Your task to perform on an android device: Search for vegetarian restaurants on Maps Image 0: 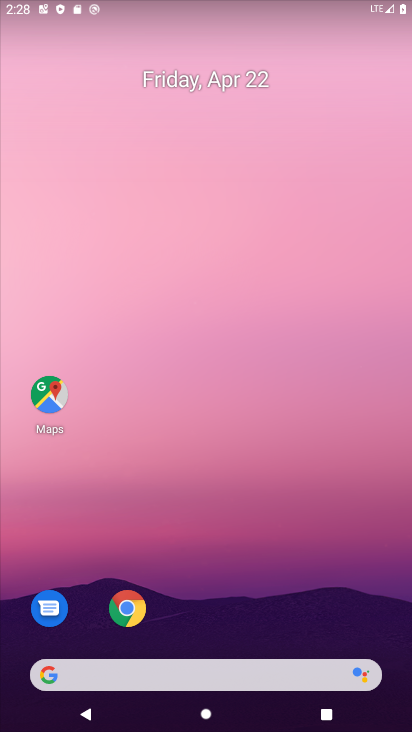
Step 0: drag from (278, 701) to (268, 267)
Your task to perform on an android device: Search for vegetarian restaurants on Maps Image 1: 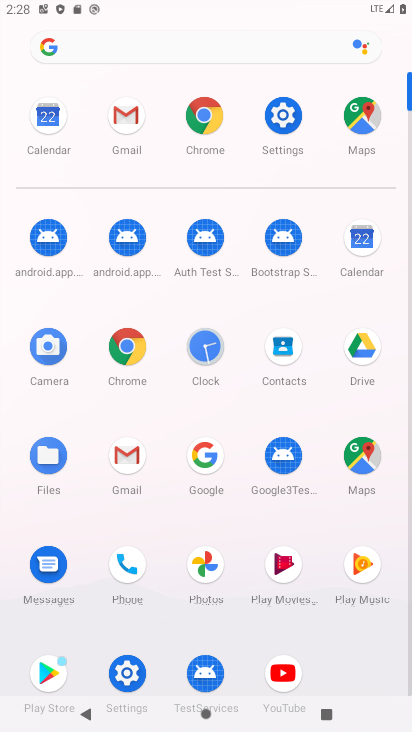
Step 1: click (347, 115)
Your task to perform on an android device: Search for vegetarian restaurants on Maps Image 2: 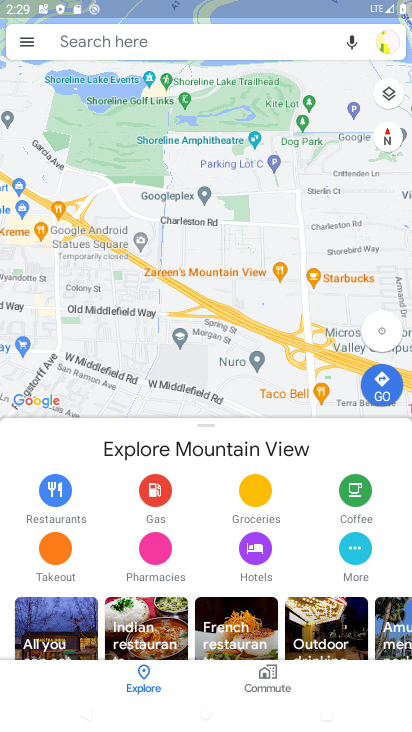
Step 2: click (194, 38)
Your task to perform on an android device: Search for vegetarian restaurants on Maps Image 3: 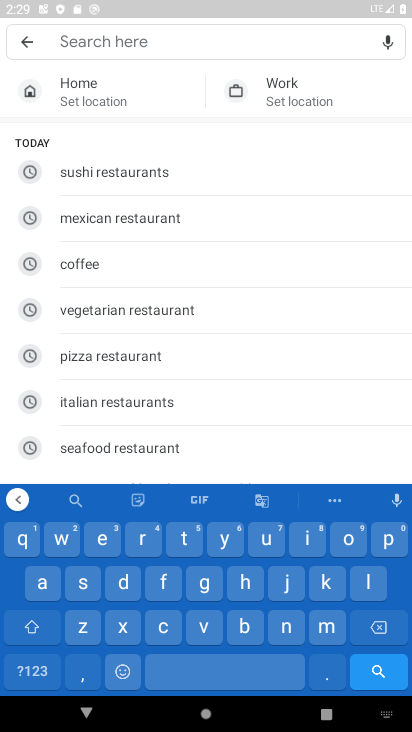
Step 3: click (82, 309)
Your task to perform on an android device: Search for vegetarian restaurants on Maps Image 4: 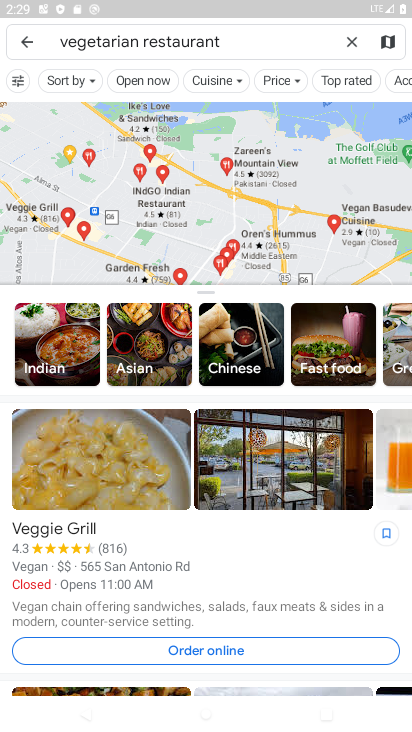
Step 4: click (183, 234)
Your task to perform on an android device: Search for vegetarian restaurants on Maps Image 5: 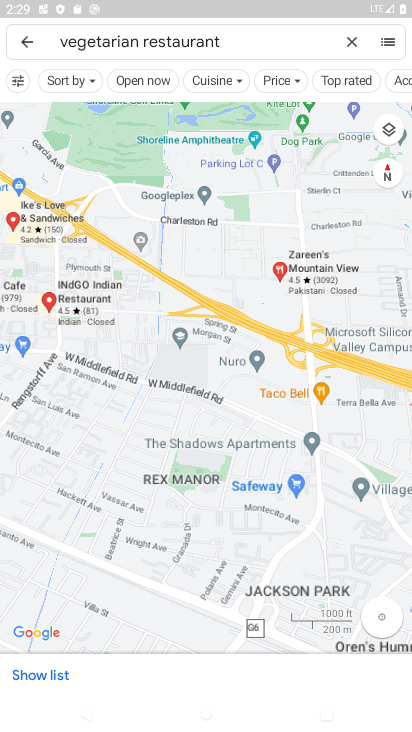
Step 5: task complete